Your task to perform on an android device: Open Chrome and go to settings Image 0: 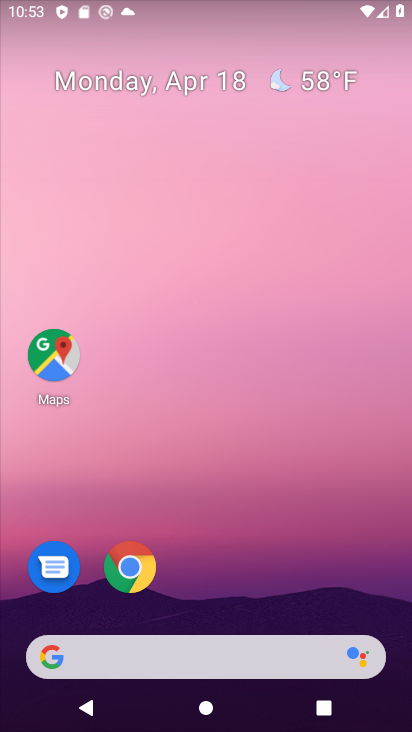
Step 0: click (131, 567)
Your task to perform on an android device: Open Chrome and go to settings Image 1: 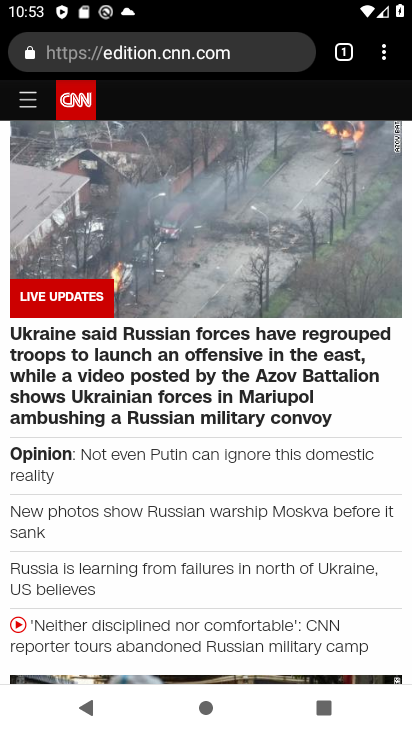
Step 1: click (383, 60)
Your task to perform on an android device: Open Chrome and go to settings Image 2: 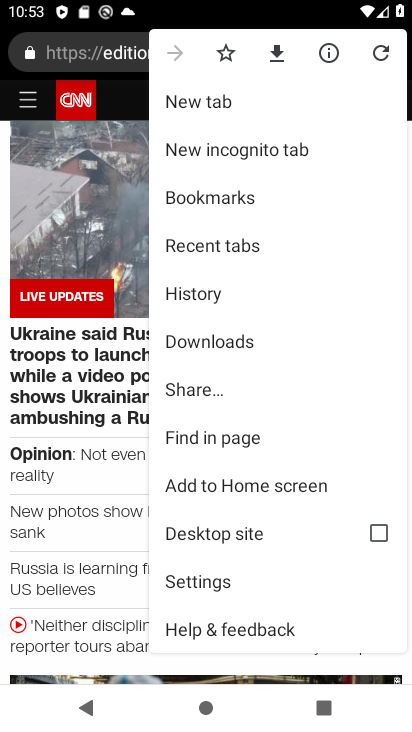
Step 2: click (203, 580)
Your task to perform on an android device: Open Chrome and go to settings Image 3: 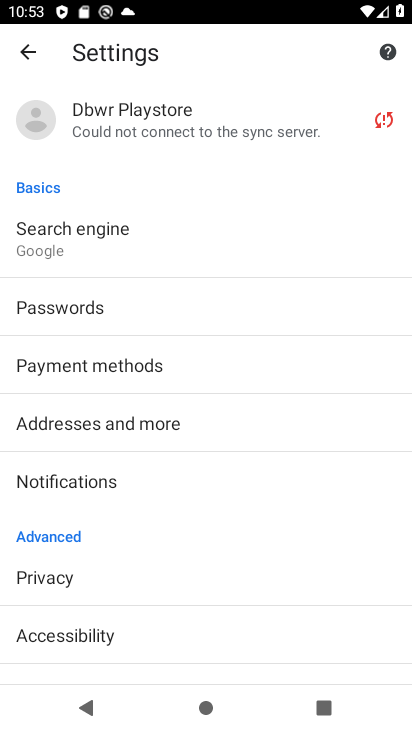
Step 3: task complete